Your task to perform on an android device: Turn off the flashlight Image 0: 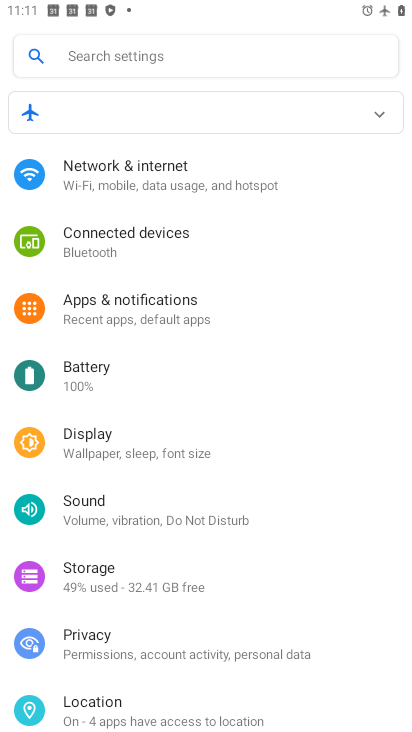
Step 0: press home button
Your task to perform on an android device: Turn off the flashlight Image 1: 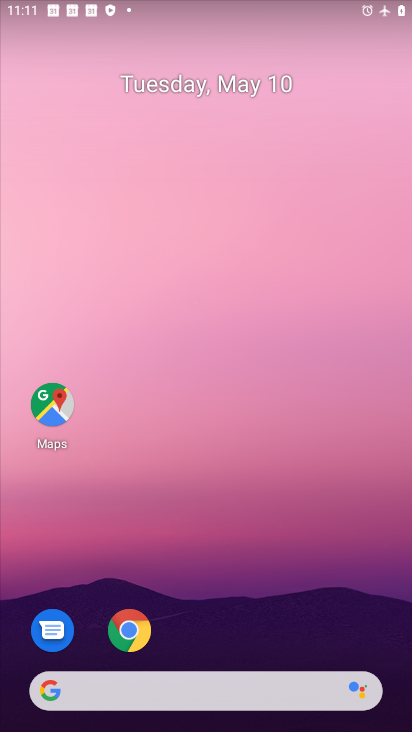
Step 1: task complete